Your task to perform on an android device: Open settings Image 0: 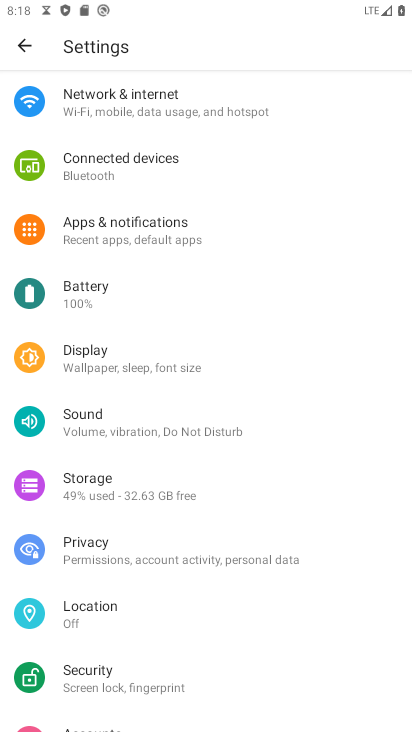
Step 0: drag from (180, 532) to (295, 266)
Your task to perform on an android device: Open settings Image 1: 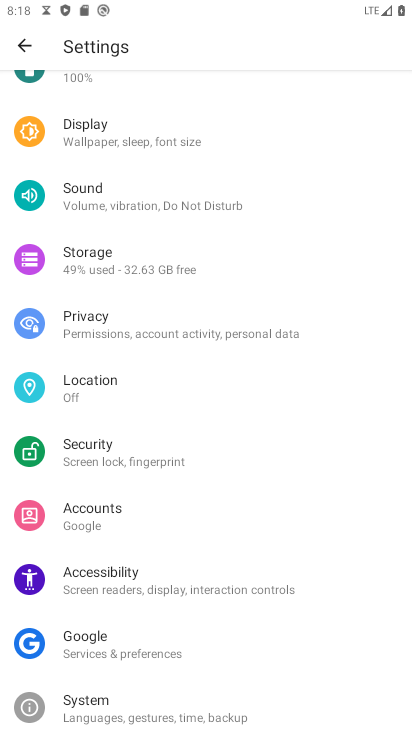
Step 1: task complete